Your task to perform on an android device: Open privacy settings Image 0: 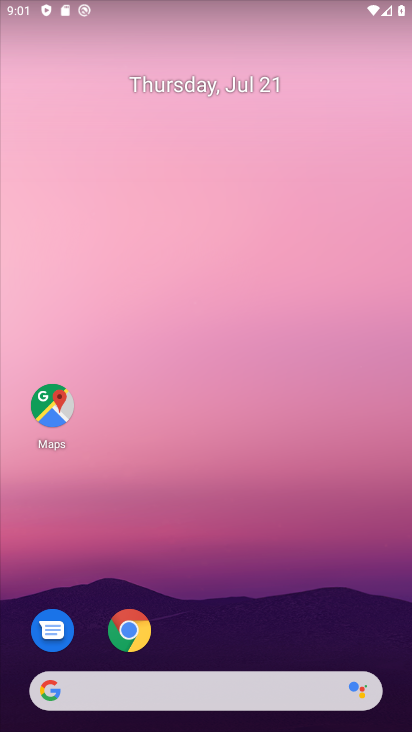
Step 0: drag from (197, 724) to (197, 242)
Your task to perform on an android device: Open privacy settings Image 1: 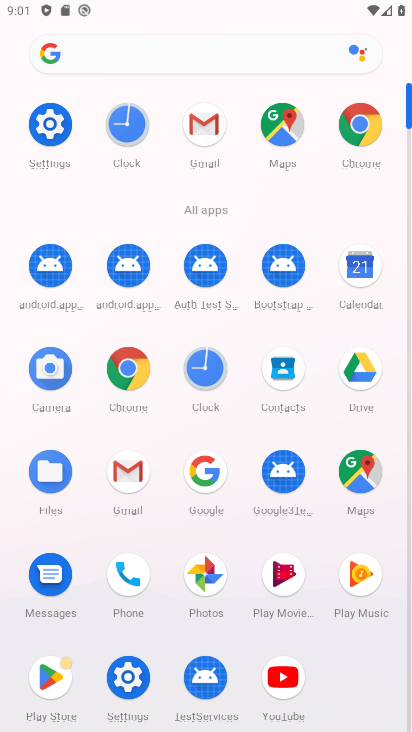
Step 1: click (52, 121)
Your task to perform on an android device: Open privacy settings Image 2: 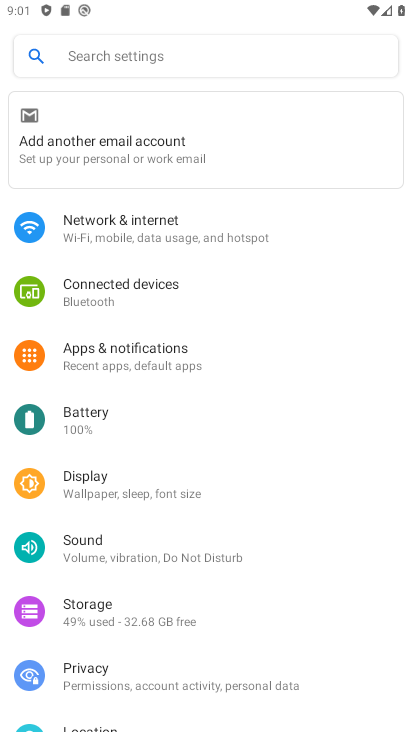
Step 2: click (91, 682)
Your task to perform on an android device: Open privacy settings Image 3: 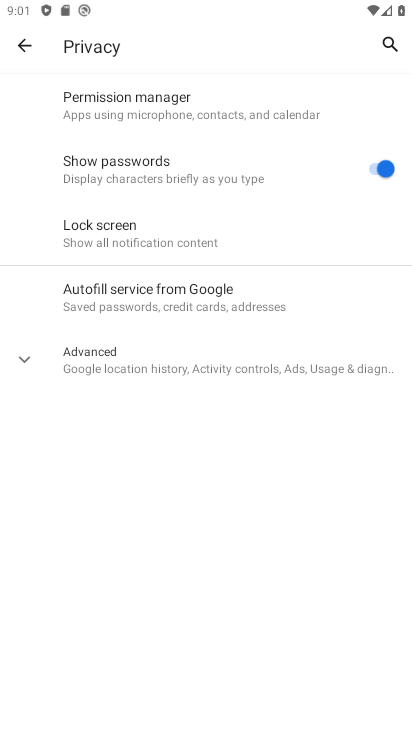
Step 3: task complete